Your task to perform on an android device: Go to eBay Image 0: 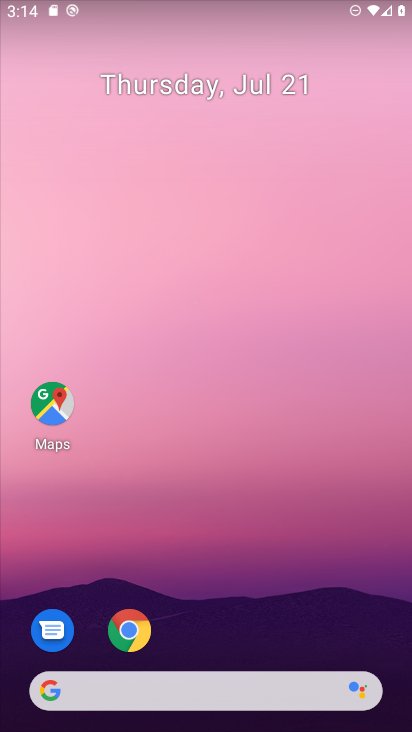
Step 0: click (141, 630)
Your task to perform on an android device: Go to eBay Image 1: 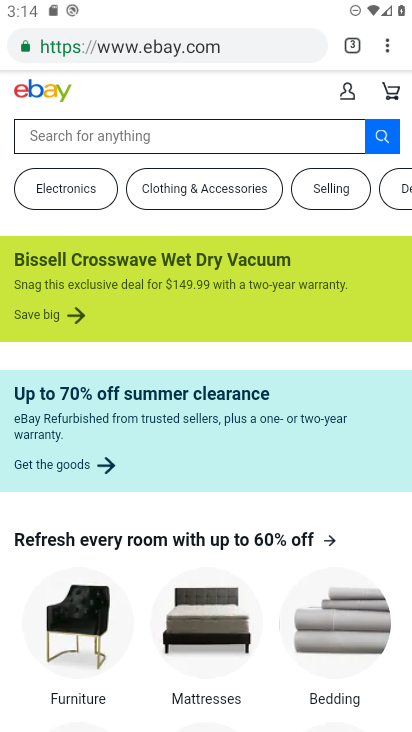
Step 1: task complete